Your task to perform on an android device: change keyboard looks Image 0: 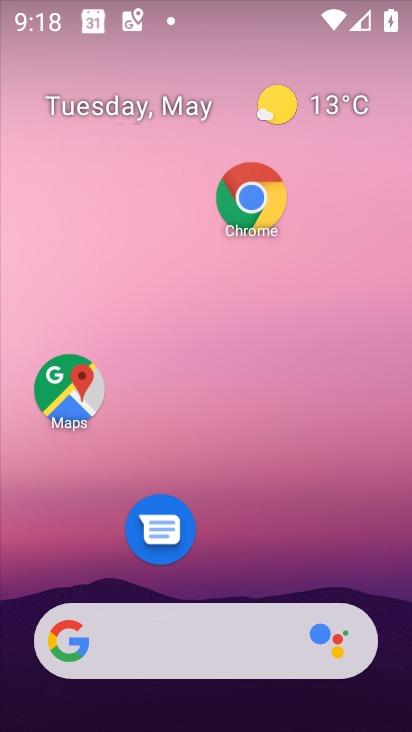
Step 0: drag from (317, 546) to (285, 111)
Your task to perform on an android device: change keyboard looks Image 1: 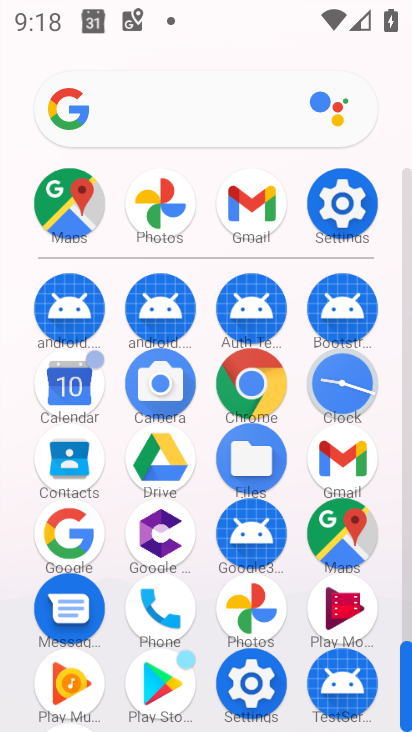
Step 1: click (351, 223)
Your task to perform on an android device: change keyboard looks Image 2: 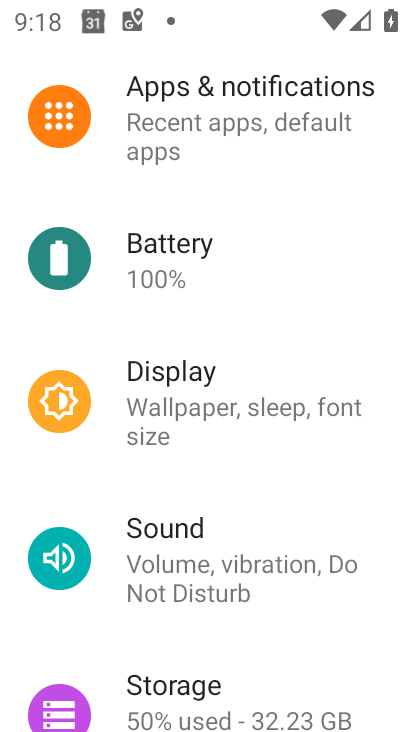
Step 2: drag from (245, 561) to (289, 214)
Your task to perform on an android device: change keyboard looks Image 3: 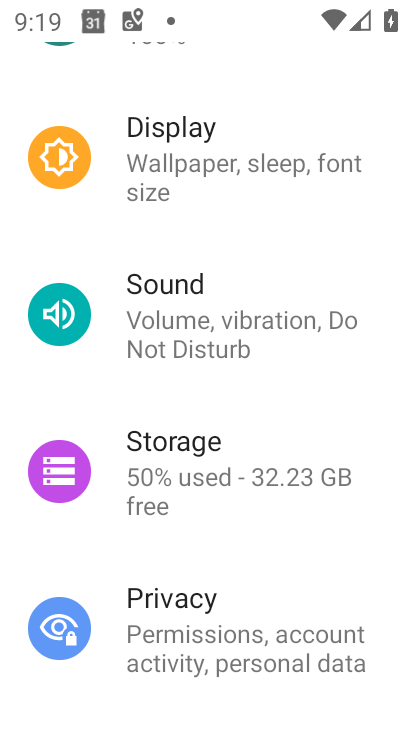
Step 3: drag from (244, 641) to (228, 253)
Your task to perform on an android device: change keyboard looks Image 4: 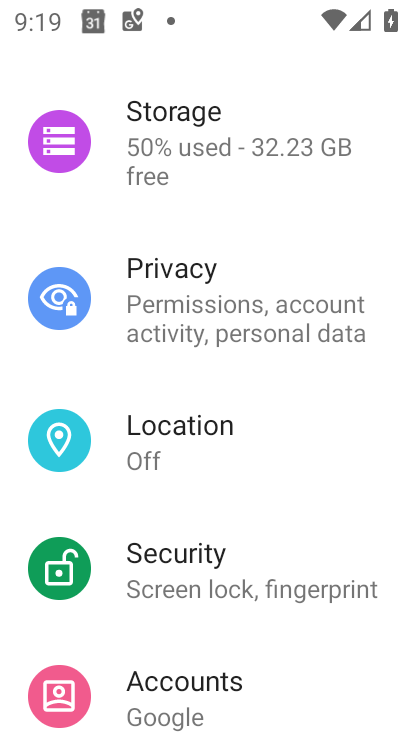
Step 4: drag from (228, 633) to (232, 315)
Your task to perform on an android device: change keyboard looks Image 5: 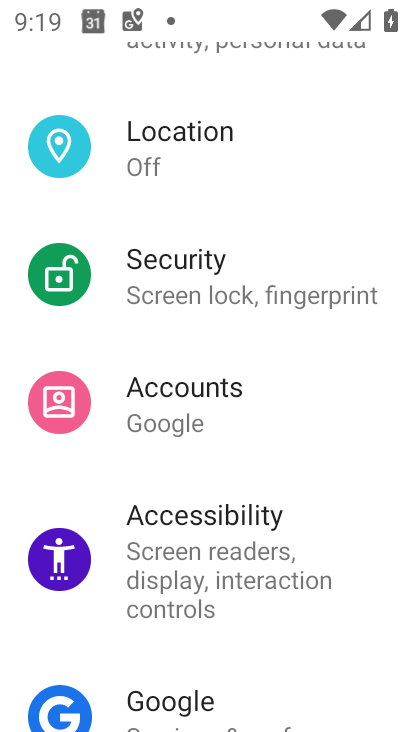
Step 5: drag from (228, 690) to (256, 234)
Your task to perform on an android device: change keyboard looks Image 6: 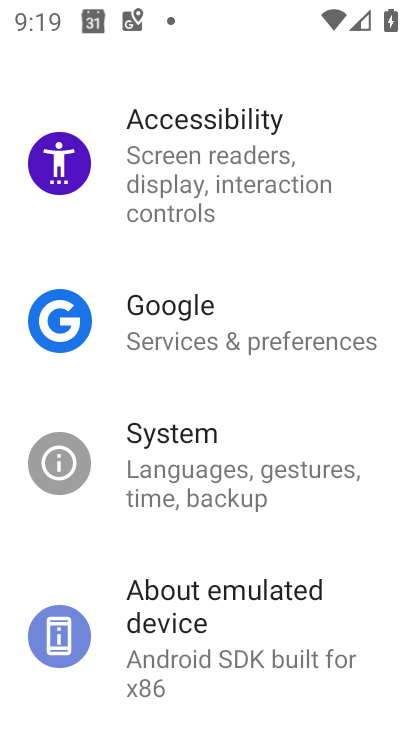
Step 6: click (231, 476)
Your task to perform on an android device: change keyboard looks Image 7: 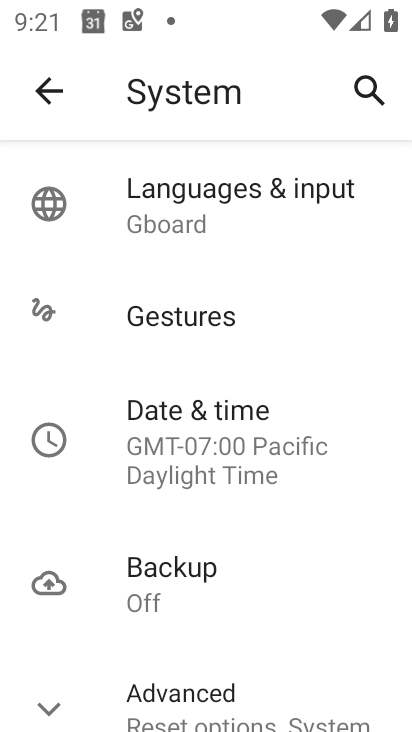
Step 7: click (235, 239)
Your task to perform on an android device: change keyboard looks Image 8: 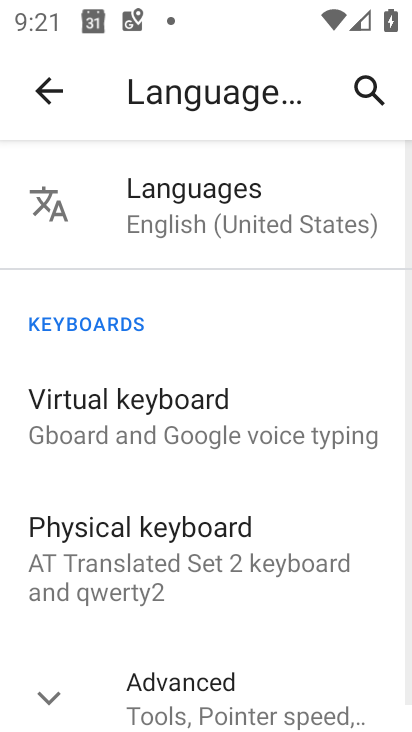
Step 8: click (274, 410)
Your task to perform on an android device: change keyboard looks Image 9: 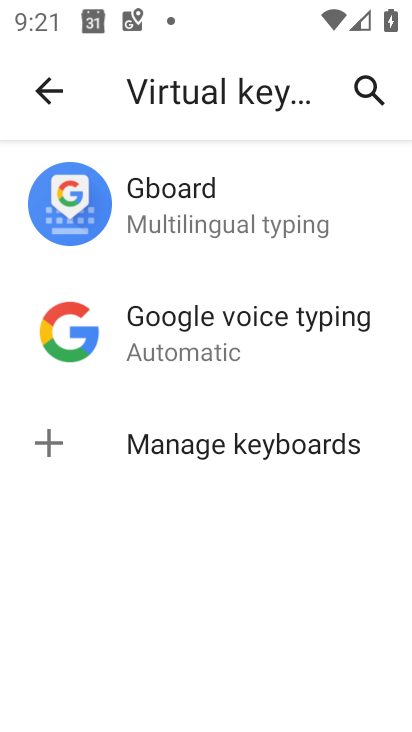
Step 9: click (203, 203)
Your task to perform on an android device: change keyboard looks Image 10: 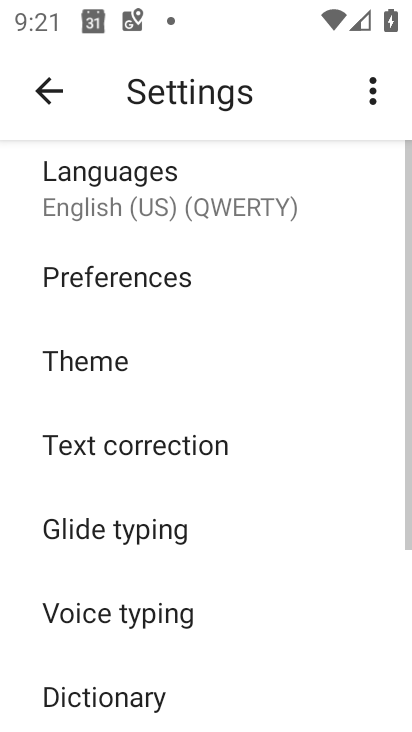
Step 10: click (167, 342)
Your task to perform on an android device: change keyboard looks Image 11: 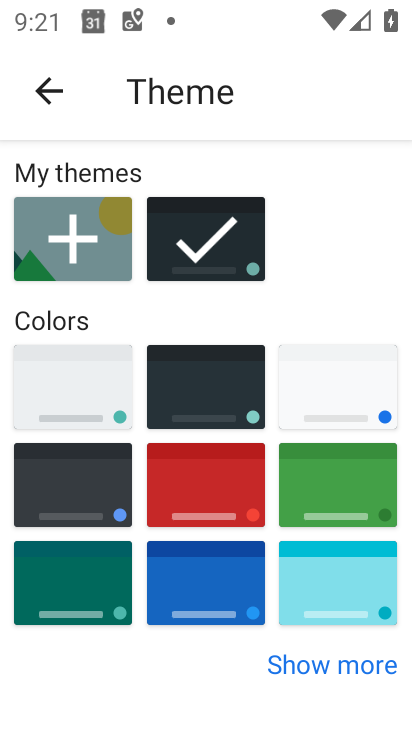
Step 11: click (189, 344)
Your task to perform on an android device: change keyboard looks Image 12: 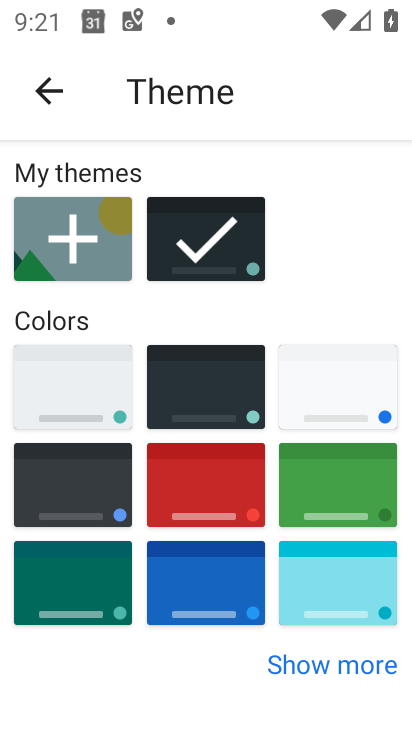
Step 12: click (215, 365)
Your task to perform on an android device: change keyboard looks Image 13: 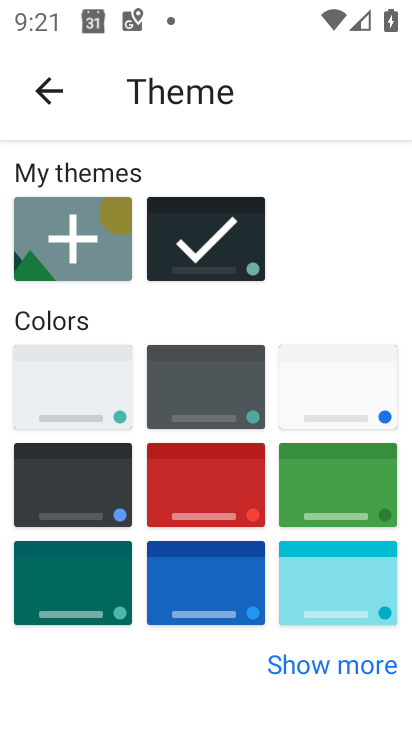
Step 13: click (215, 365)
Your task to perform on an android device: change keyboard looks Image 14: 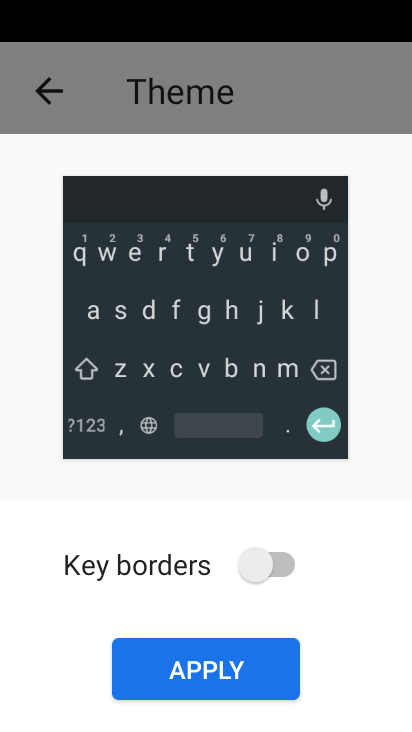
Step 14: click (215, 365)
Your task to perform on an android device: change keyboard looks Image 15: 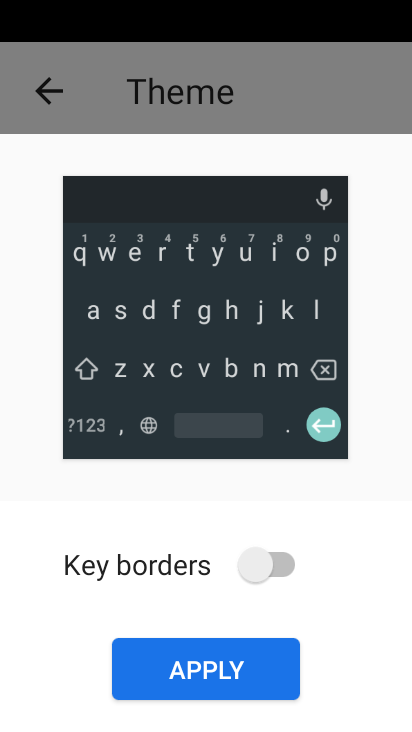
Step 15: click (215, 365)
Your task to perform on an android device: change keyboard looks Image 16: 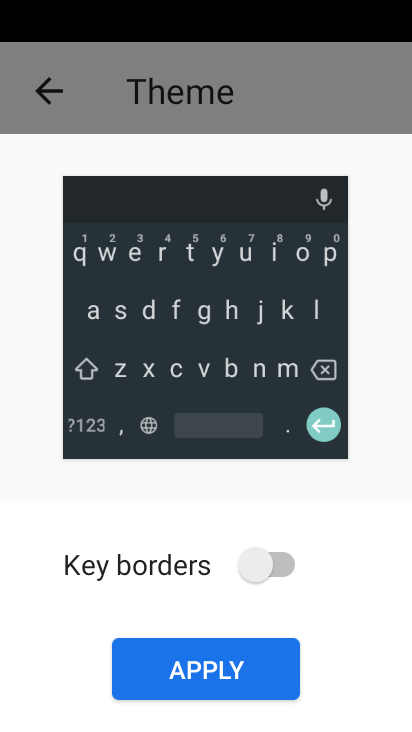
Step 16: click (219, 698)
Your task to perform on an android device: change keyboard looks Image 17: 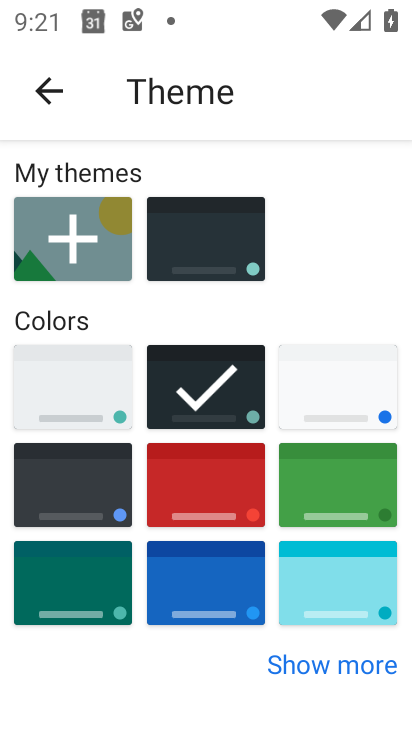
Step 17: task complete